Your task to perform on an android device: Go to ESPN.com Image 0: 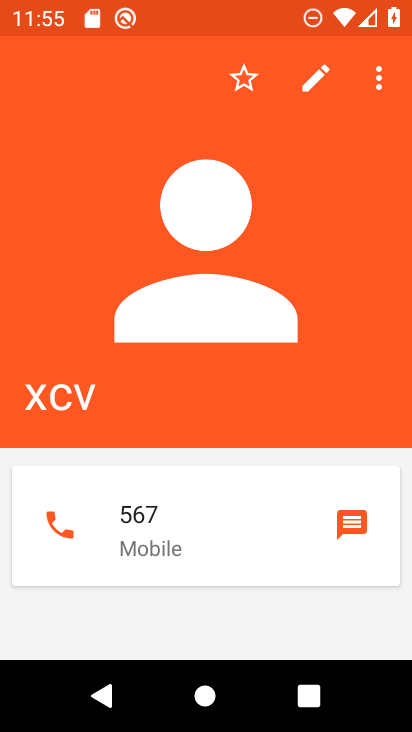
Step 0: press home button
Your task to perform on an android device: Go to ESPN.com Image 1: 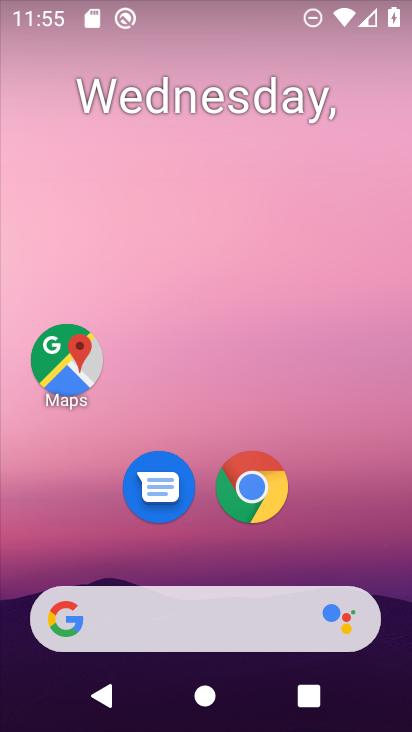
Step 1: click (241, 487)
Your task to perform on an android device: Go to ESPN.com Image 2: 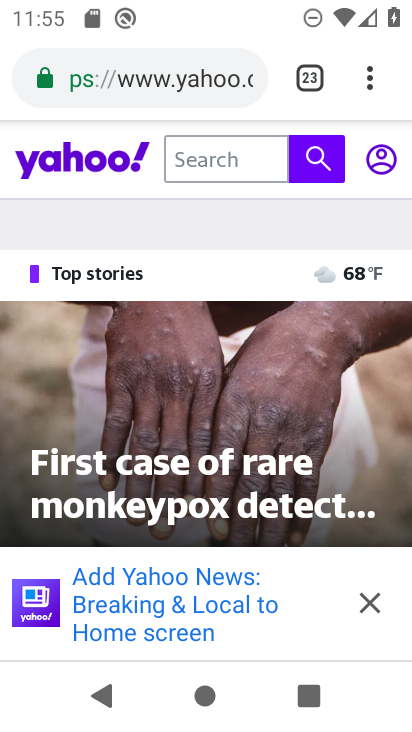
Step 2: click (370, 74)
Your task to perform on an android device: Go to ESPN.com Image 3: 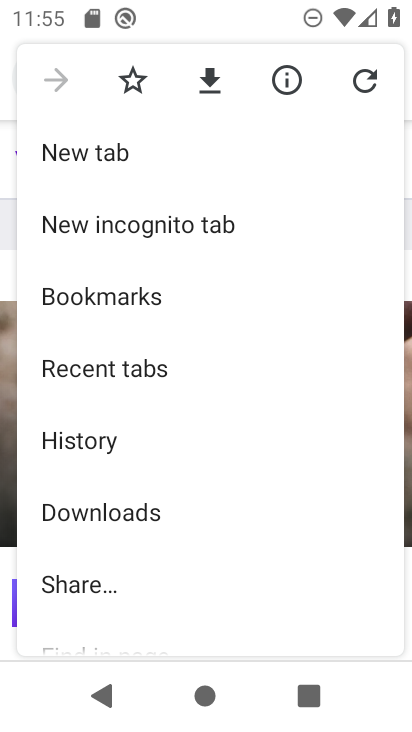
Step 3: click (86, 140)
Your task to perform on an android device: Go to ESPN.com Image 4: 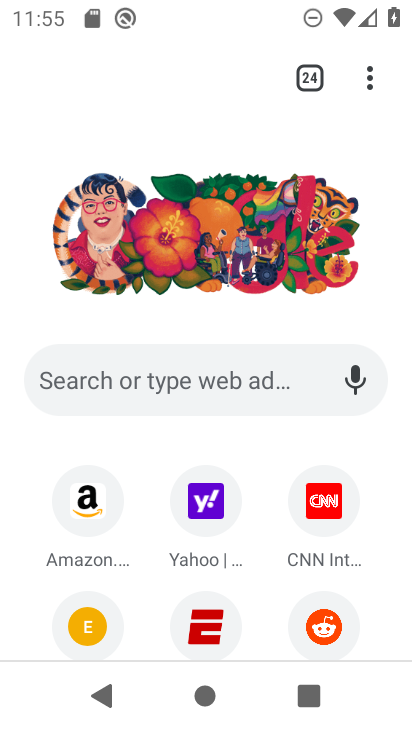
Step 4: click (193, 612)
Your task to perform on an android device: Go to ESPN.com Image 5: 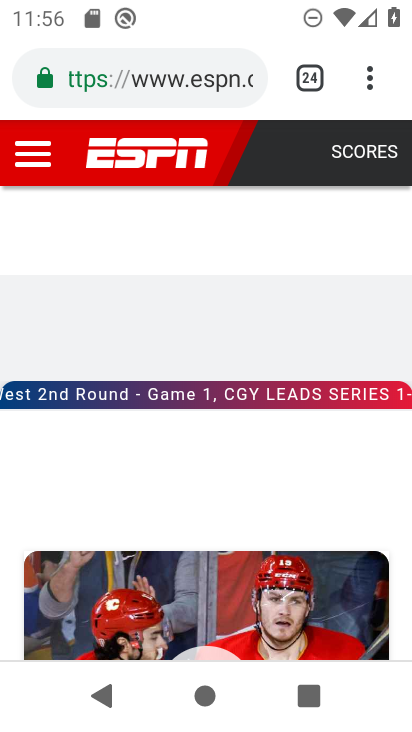
Step 5: task complete